Your task to perform on an android device: Open calendar and show me the second week of next month Image 0: 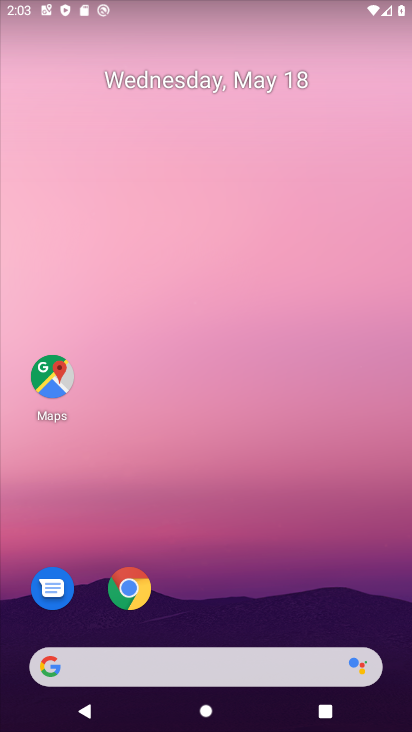
Step 0: drag from (337, 598) to (348, 177)
Your task to perform on an android device: Open calendar and show me the second week of next month Image 1: 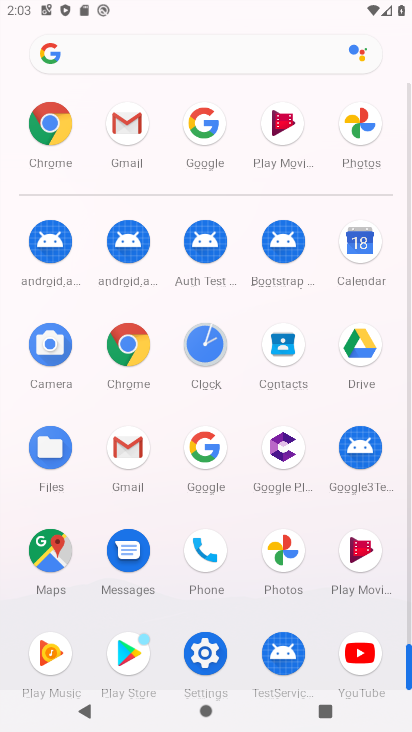
Step 1: click (372, 256)
Your task to perform on an android device: Open calendar and show me the second week of next month Image 2: 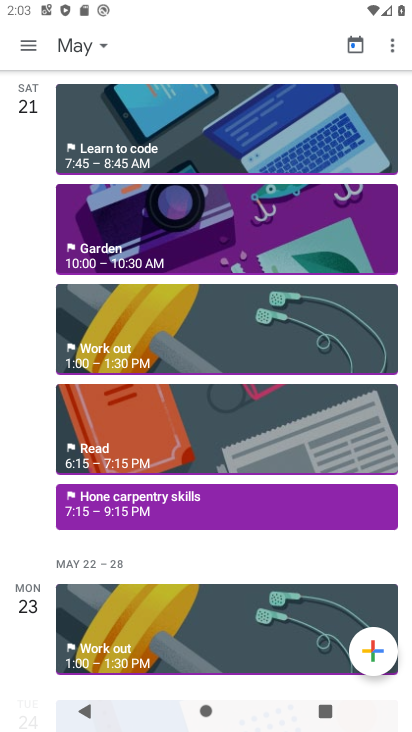
Step 2: click (100, 43)
Your task to perform on an android device: Open calendar and show me the second week of next month Image 3: 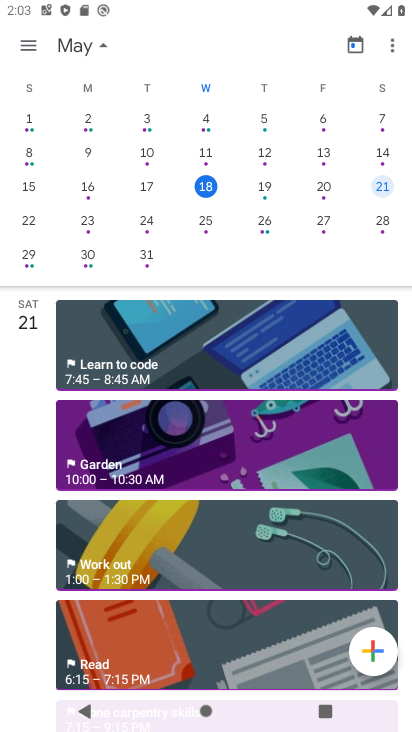
Step 3: drag from (357, 99) to (15, 112)
Your task to perform on an android device: Open calendar and show me the second week of next month Image 4: 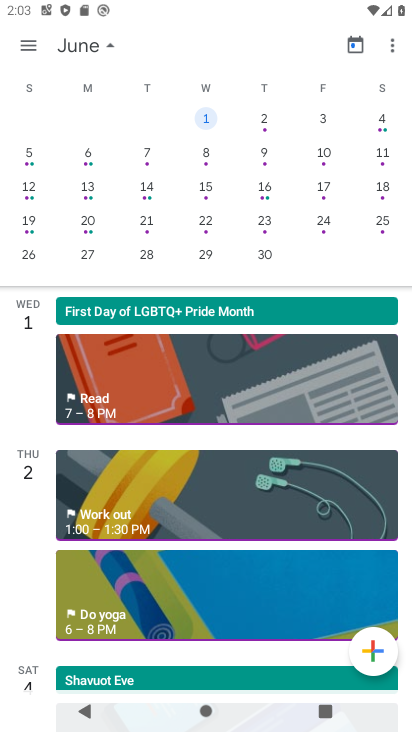
Step 4: click (90, 157)
Your task to perform on an android device: Open calendar and show me the second week of next month Image 5: 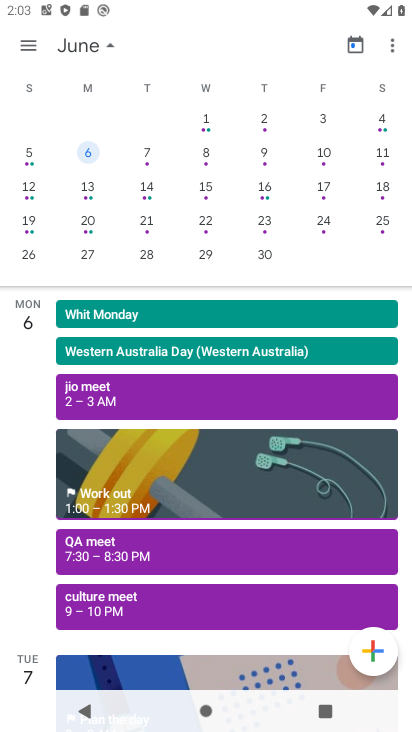
Step 5: task complete